Your task to perform on an android device: Open Yahoo.com Image 0: 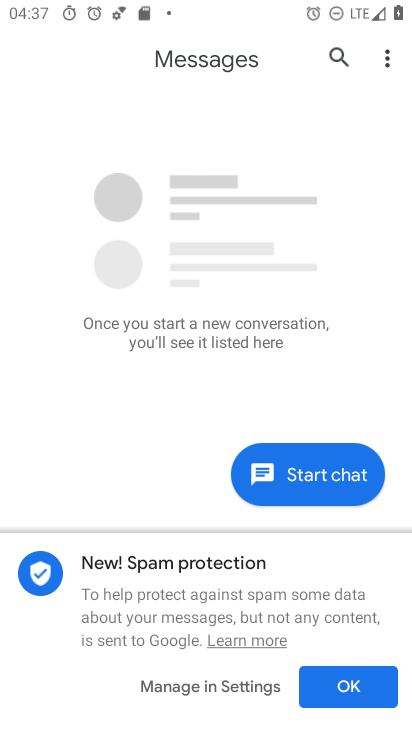
Step 0: press home button
Your task to perform on an android device: Open Yahoo.com Image 1: 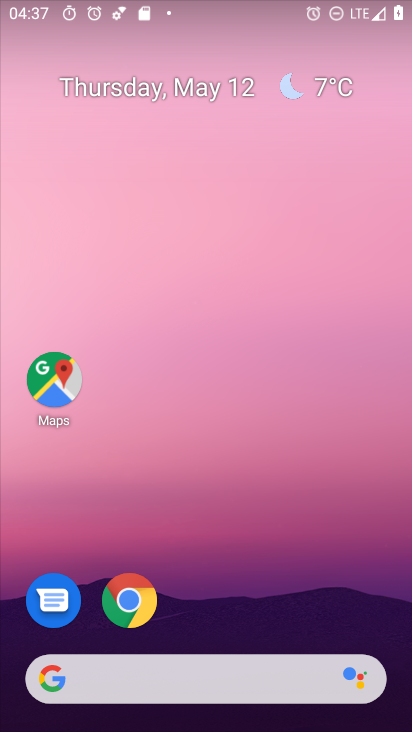
Step 1: click (133, 600)
Your task to perform on an android device: Open Yahoo.com Image 2: 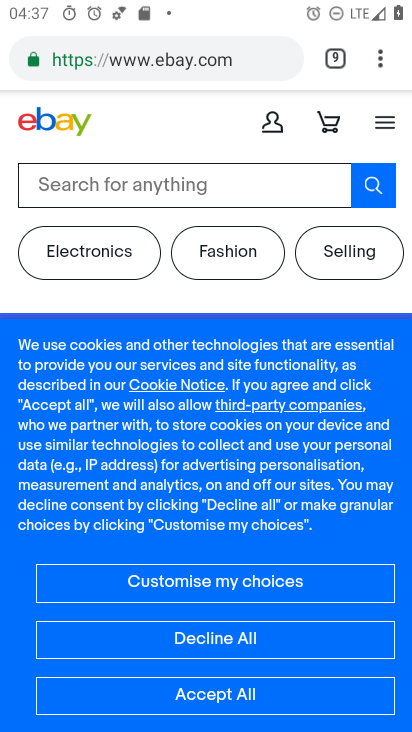
Step 2: click (382, 65)
Your task to perform on an android device: Open Yahoo.com Image 3: 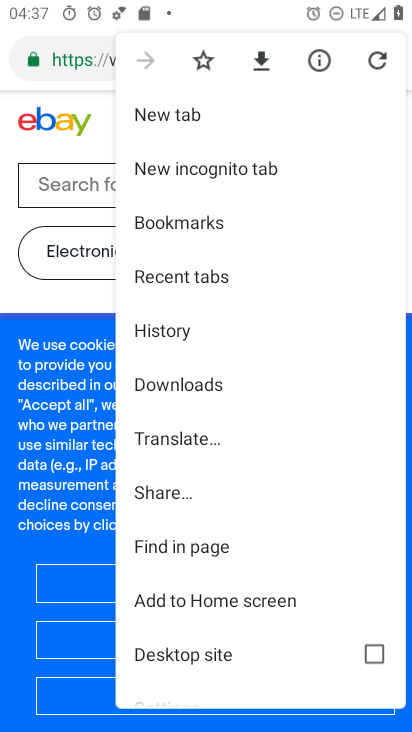
Step 3: click (160, 112)
Your task to perform on an android device: Open Yahoo.com Image 4: 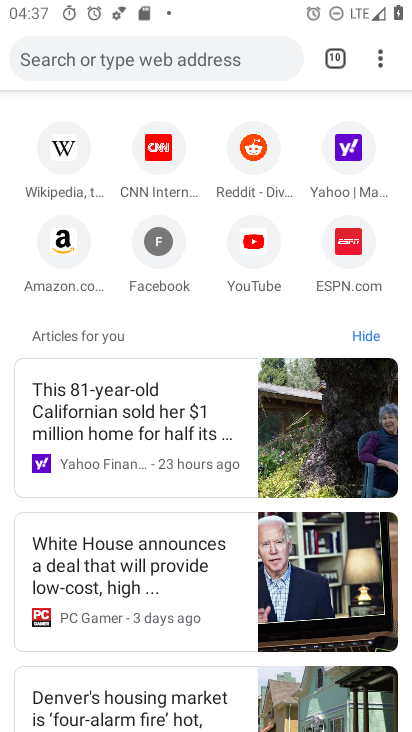
Step 4: click (343, 152)
Your task to perform on an android device: Open Yahoo.com Image 5: 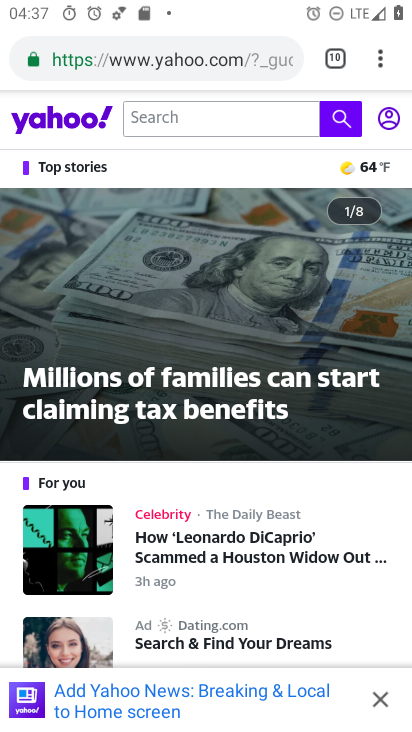
Step 5: task complete